Your task to perform on an android device: View the shopping cart on bestbuy. Search for "logitech g933" on bestbuy, select the first entry, add it to the cart, then select checkout. Image 0: 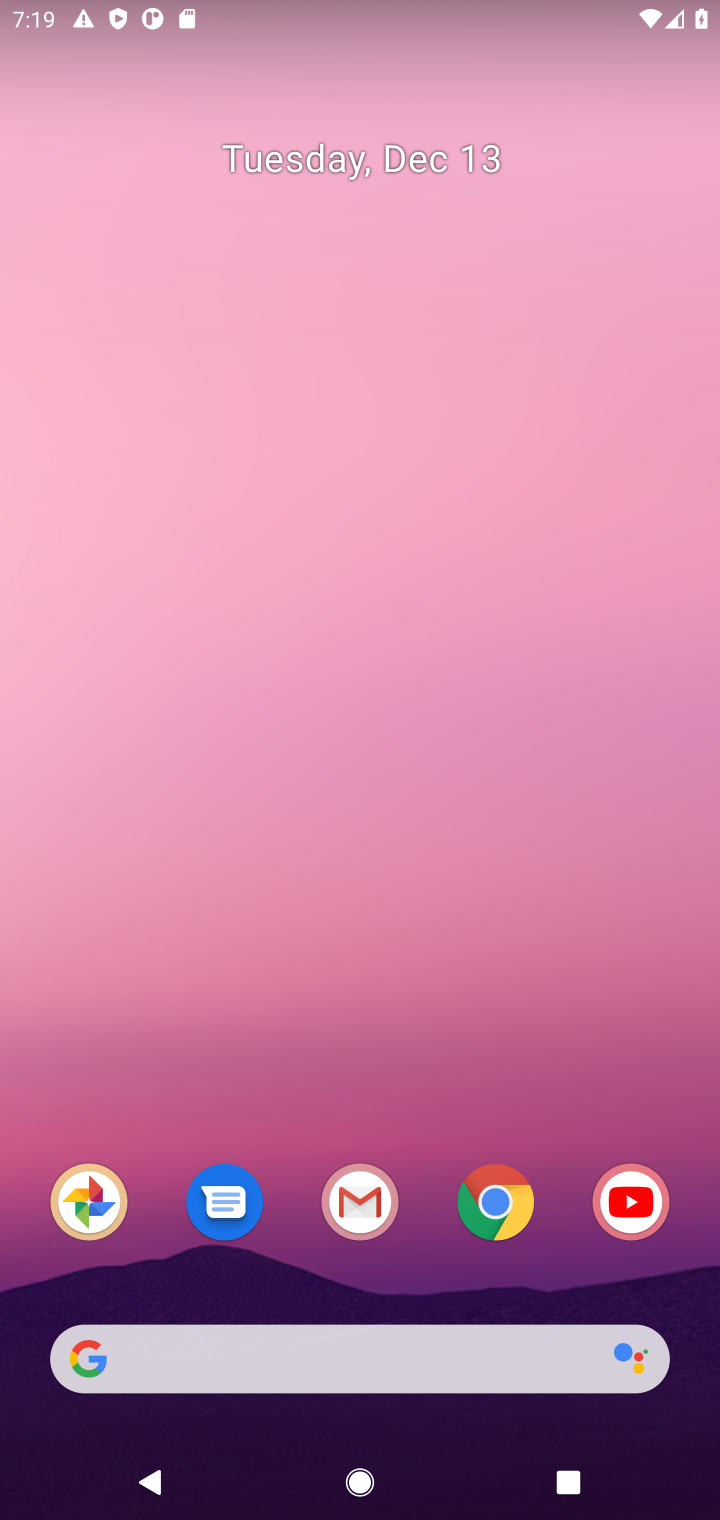
Step 0: click (509, 1201)
Your task to perform on an android device: View the shopping cart on bestbuy. Search for "logitech g933" on bestbuy, select the first entry, add it to the cart, then select checkout. Image 1: 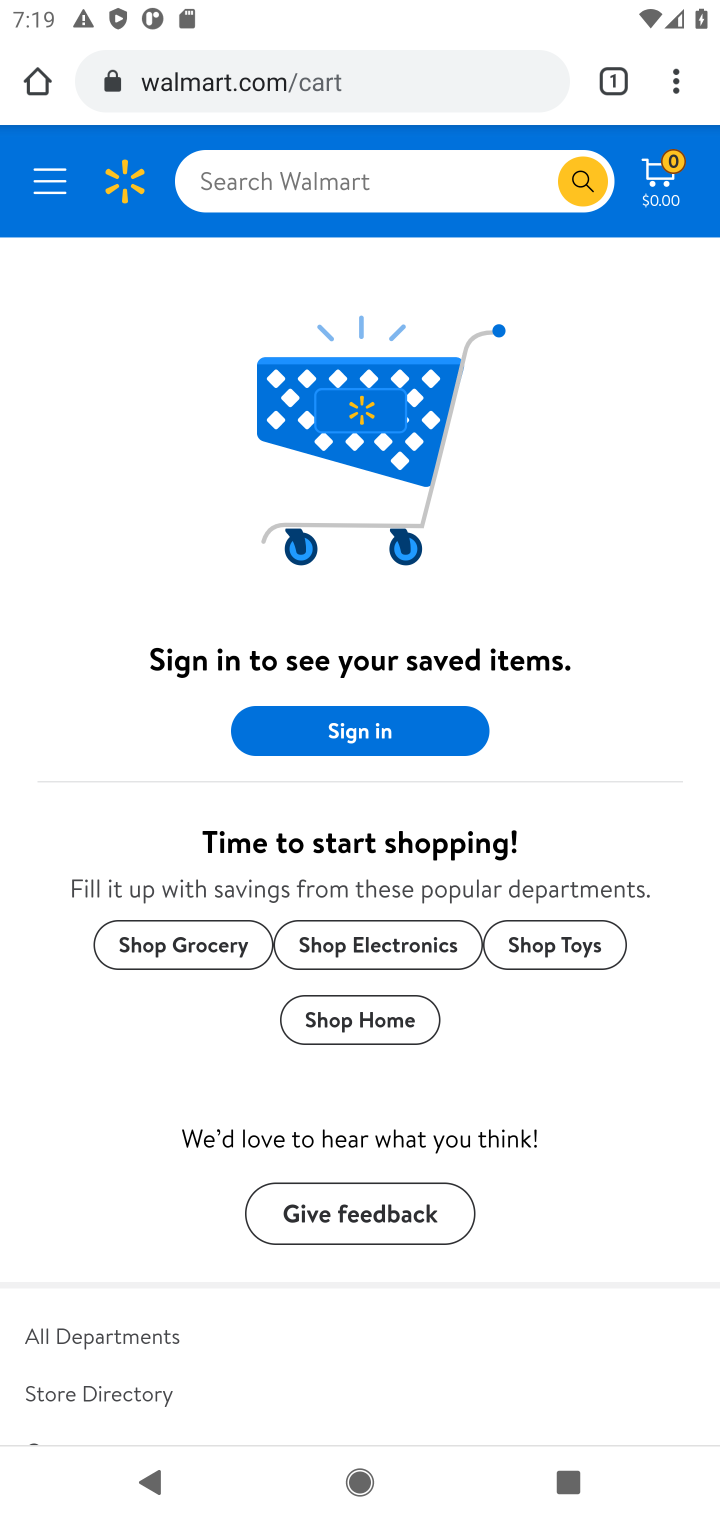
Step 1: click (274, 84)
Your task to perform on an android device: View the shopping cart on bestbuy. Search for "logitech g933" on bestbuy, select the first entry, add it to the cart, then select checkout. Image 2: 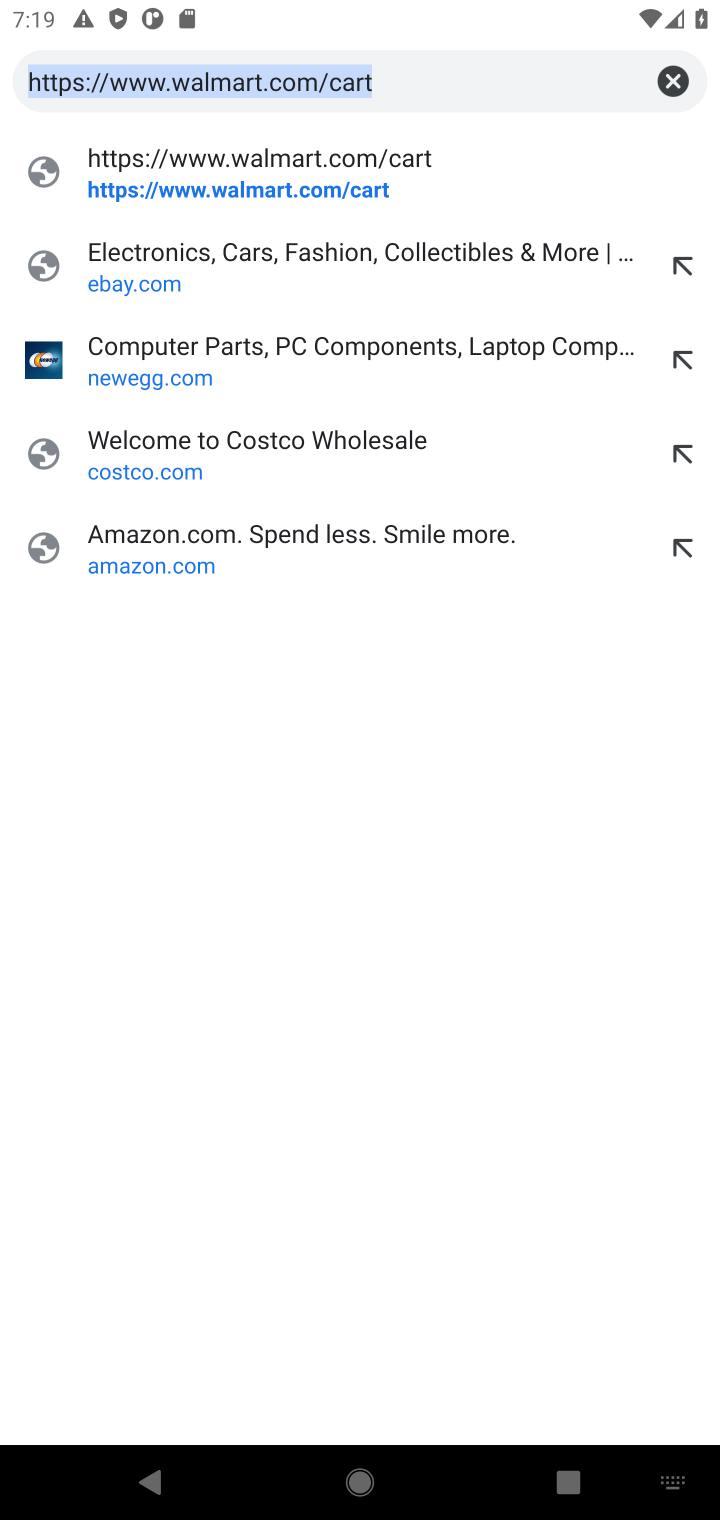
Step 2: type "bestbuy.com"
Your task to perform on an android device: View the shopping cart on bestbuy. Search for "logitech g933" on bestbuy, select the first entry, add it to the cart, then select checkout. Image 3: 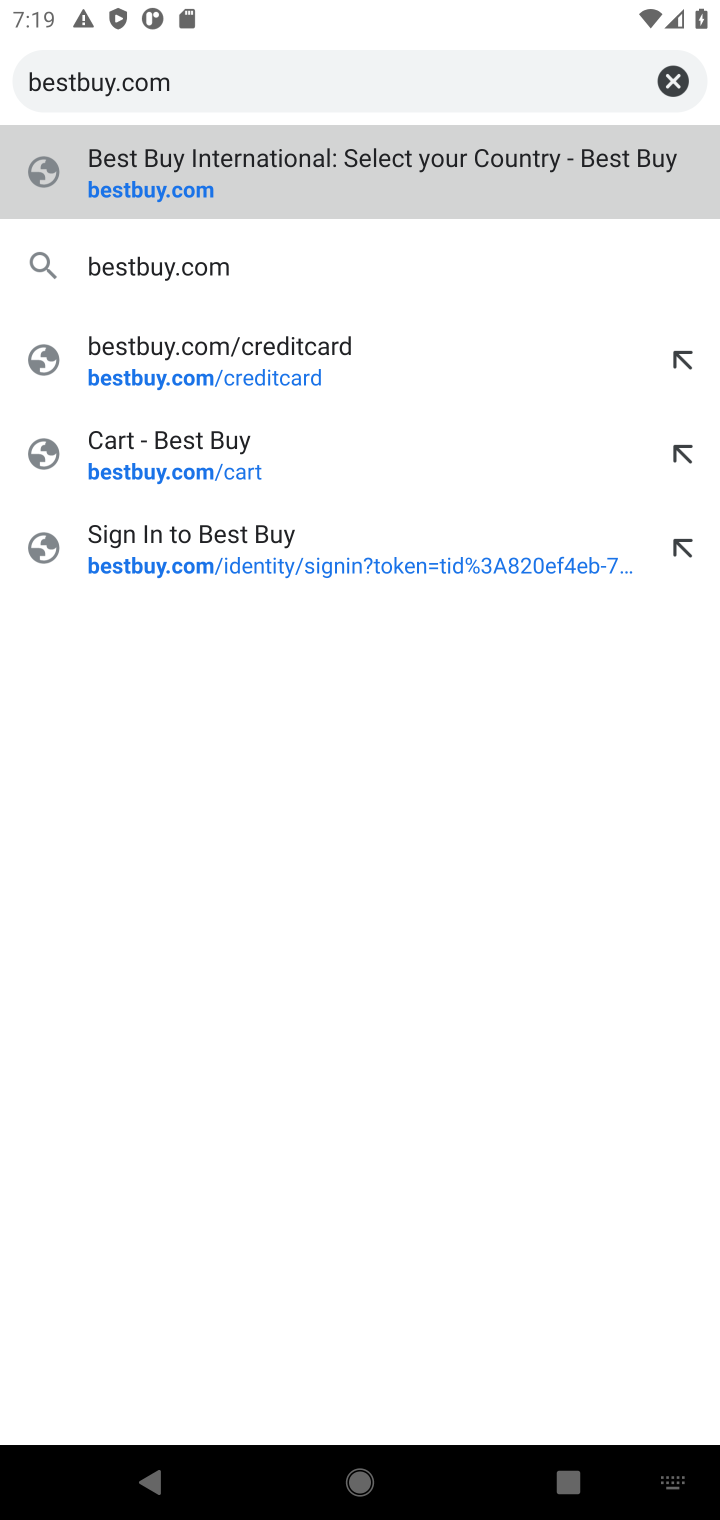
Step 3: click (133, 200)
Your task to perform on an android device: View the shopping cart on bestbuy. Search for "logitech g933" on bestbuy, select the first entry, add it to the cart, then select checkout. Image 4: 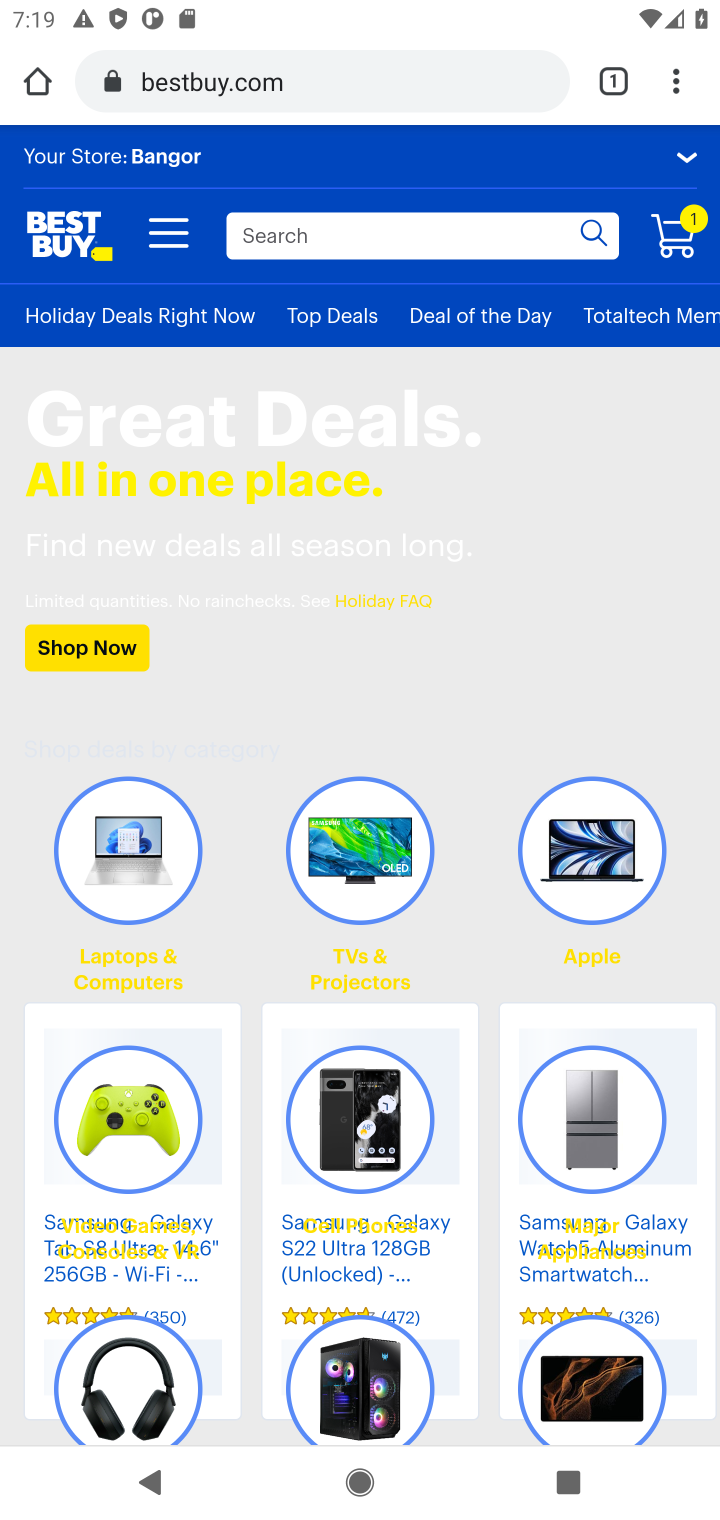
Step 4: click (675, 242)
Your task to perform on an android device: View the shopping cart on bestbuy. Search for "logitech g933" on bestbuy, select the first entry, add it to the cart, then select checkout. Image 5: 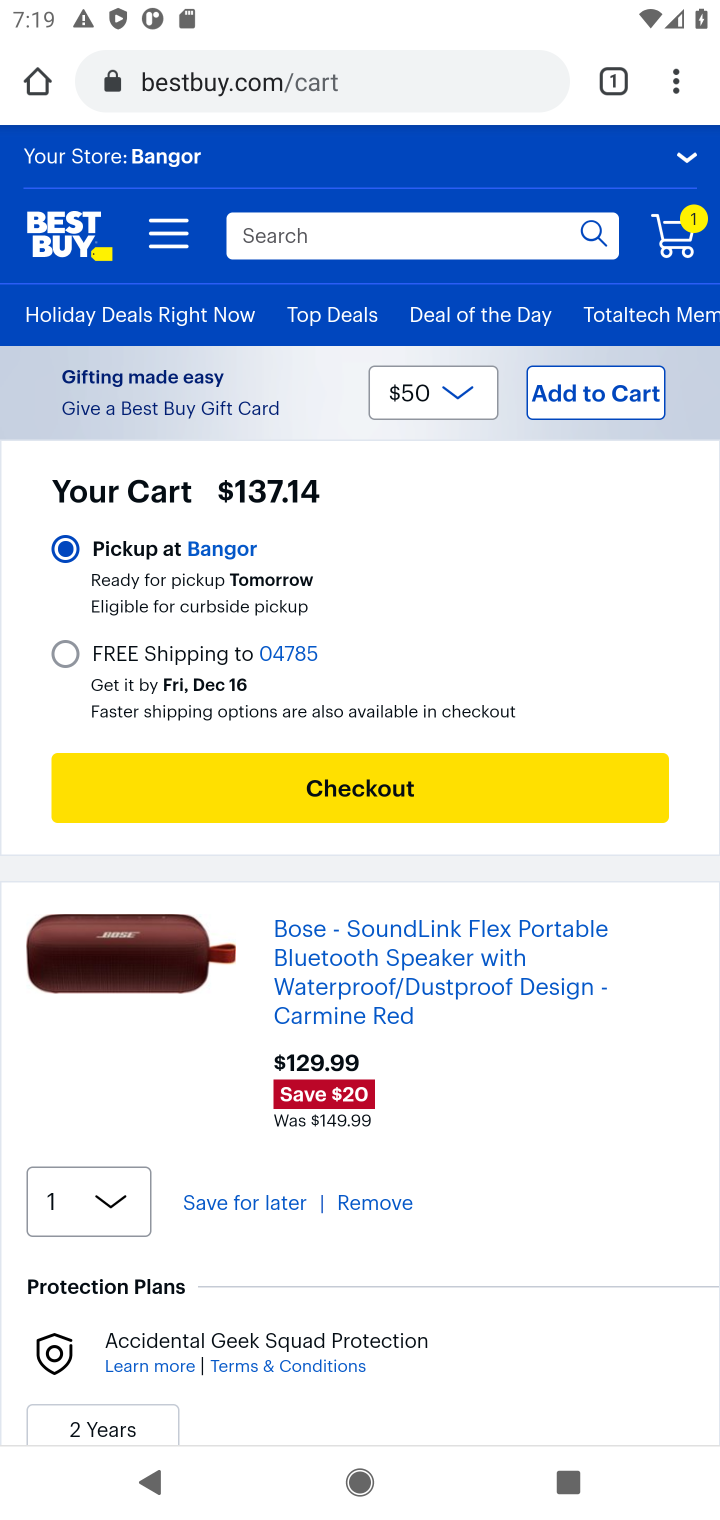
Step 5: drag from (621, 985) to (598, 479)
Your task to perform on an android device: View the shopping cart on bestbuy. Search for "logitech g933" on bestbuy, select the first entry, add it to the cart, then select checkout. Image 6: 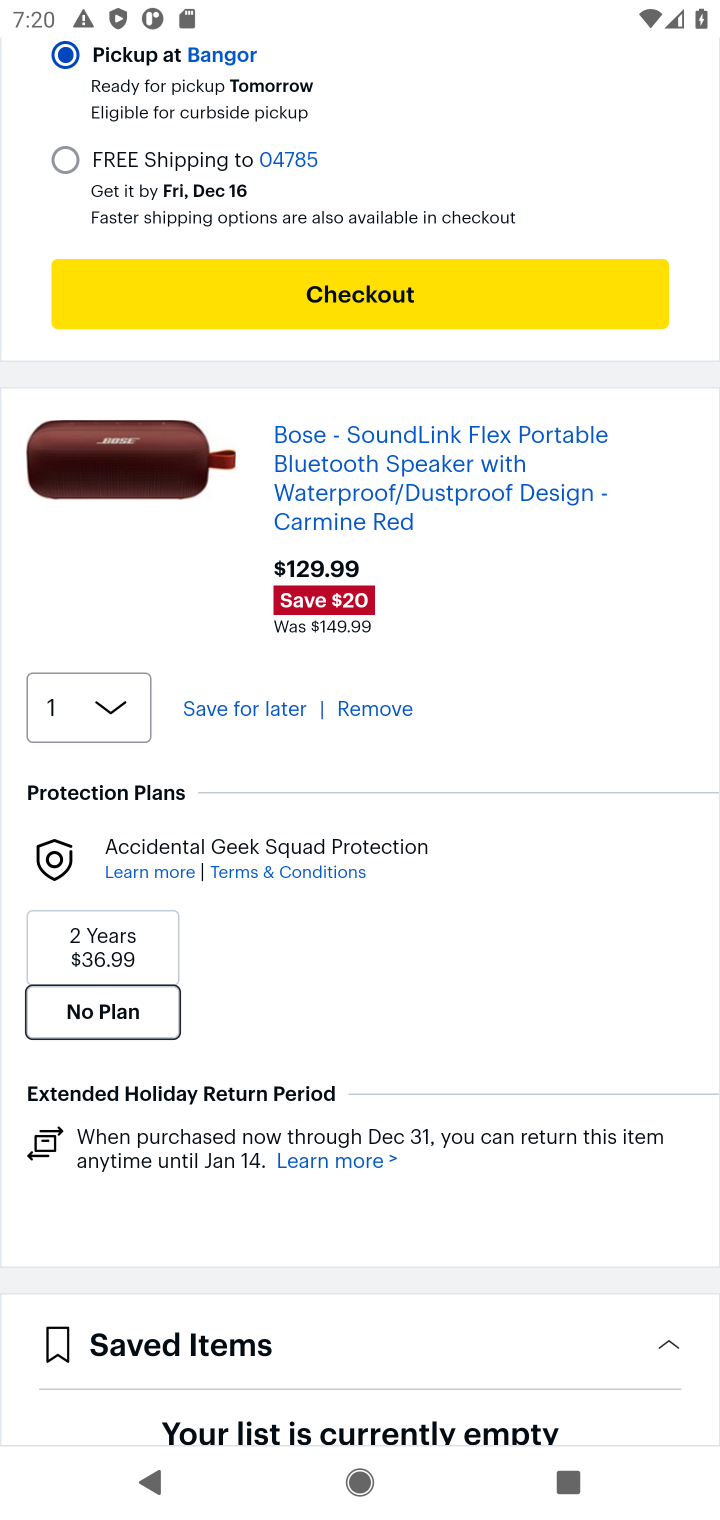
Step 6: drag from (652, 589) to (700, 1077)
Your task to perform on an android device: View the shopping cart on bestbuy. Search for "logitech g933" on bestbuy, select the first entry, add it to the cart, then select checkout. Image 7: 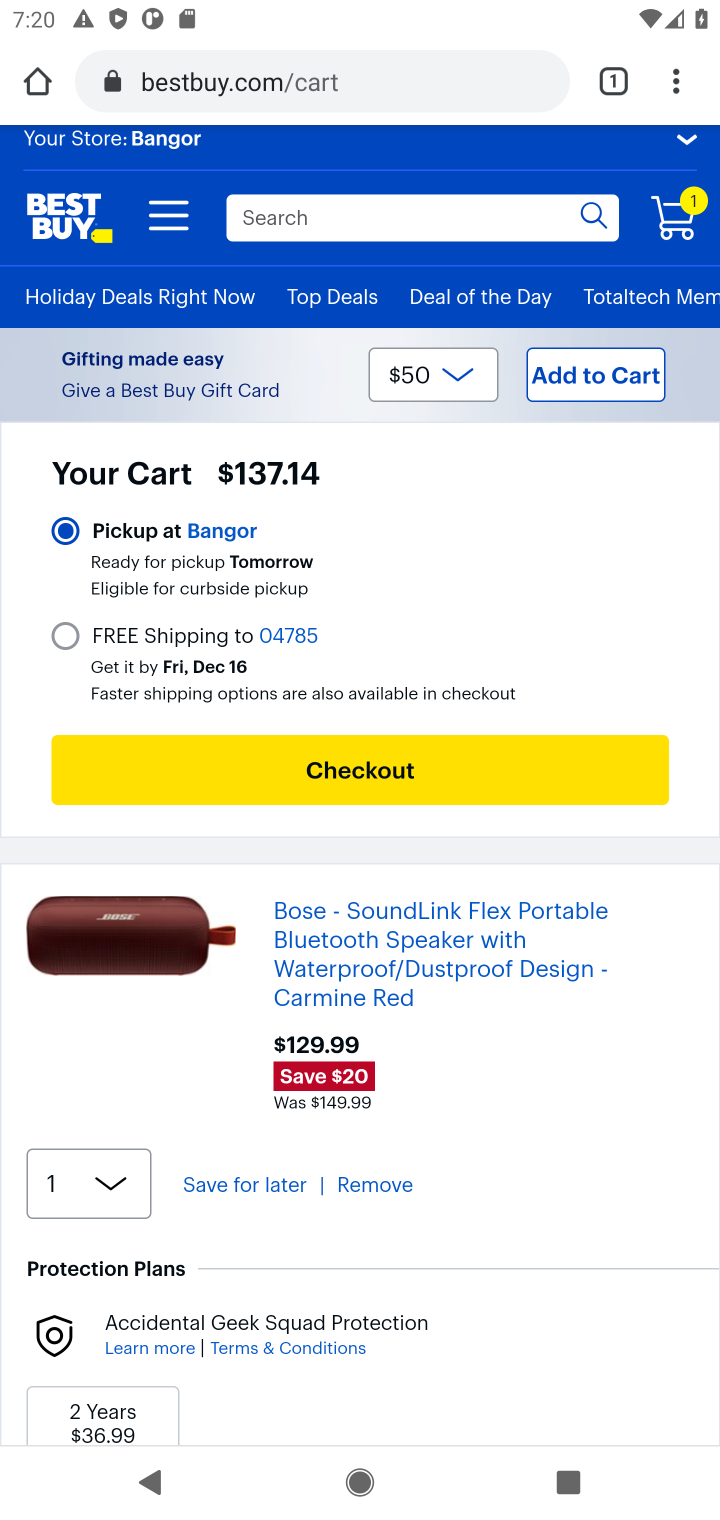
Step 7: click (282, 219)
Your task to perform on an android device: View the shopping cart on bestbuy. Search for "logitech g933" on bestbuy, select the first entry, add it to the cart, then select checkout. Image 8: 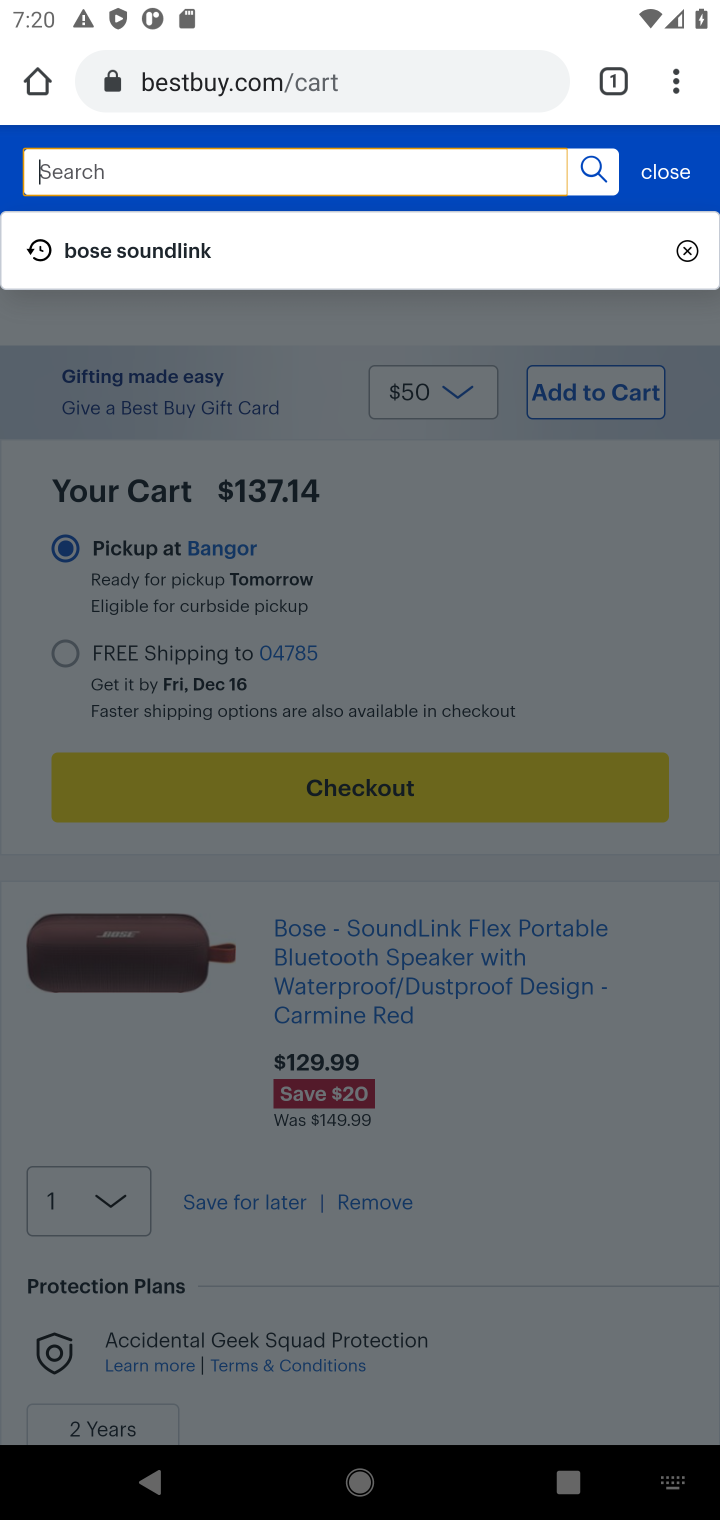
Step 8: type "logitech g933"
Your task to perform on an android device: View the shopping cart on bestbuy. Search for "logitech g933" on bestbuy, select the first entry, add it to the cart, then select checkout. Image 9: 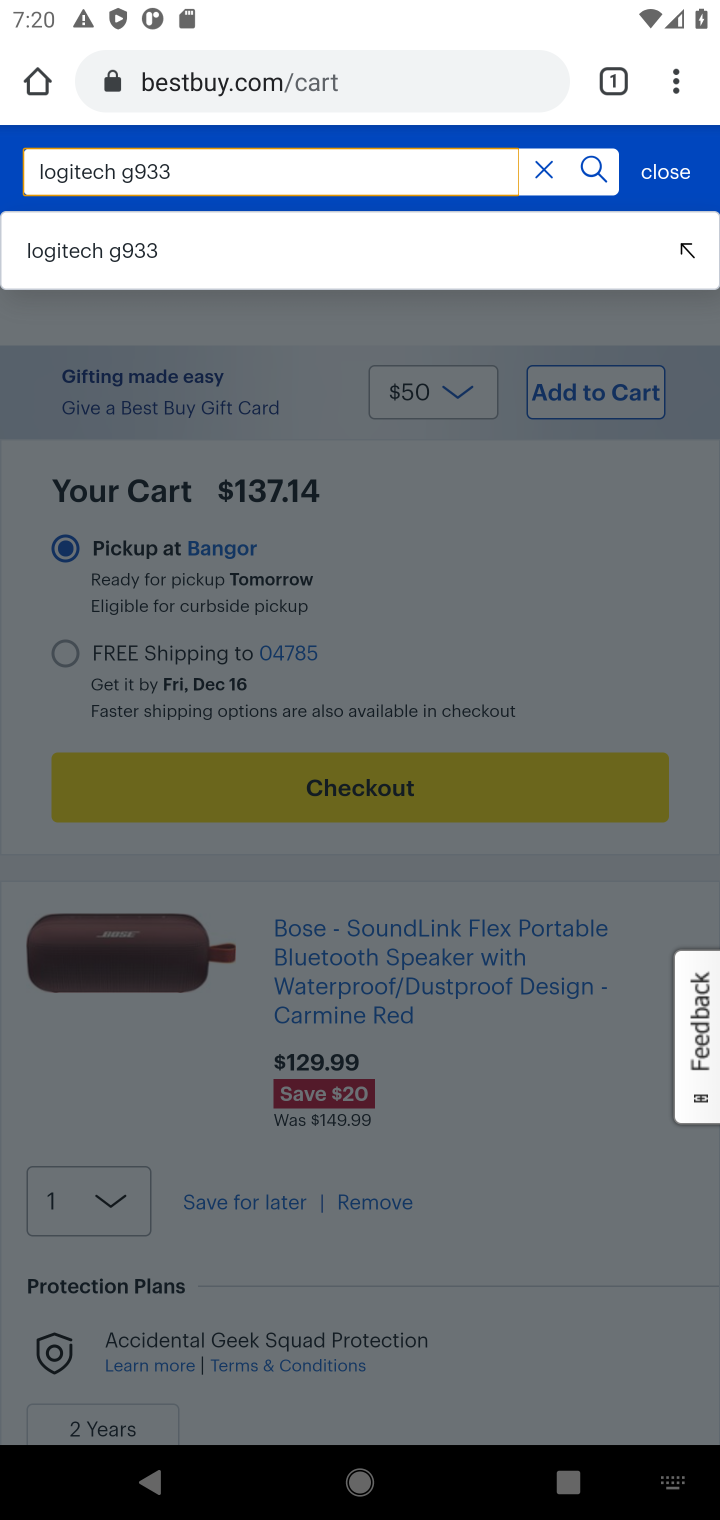
Step 9: click (106, 261)
Your task to perform on an android device: View the shopping cart on bestbuy. Search for "logitech g933" on bestbuy, select the first entry, add it to the cart, then select checkout. Image 10: 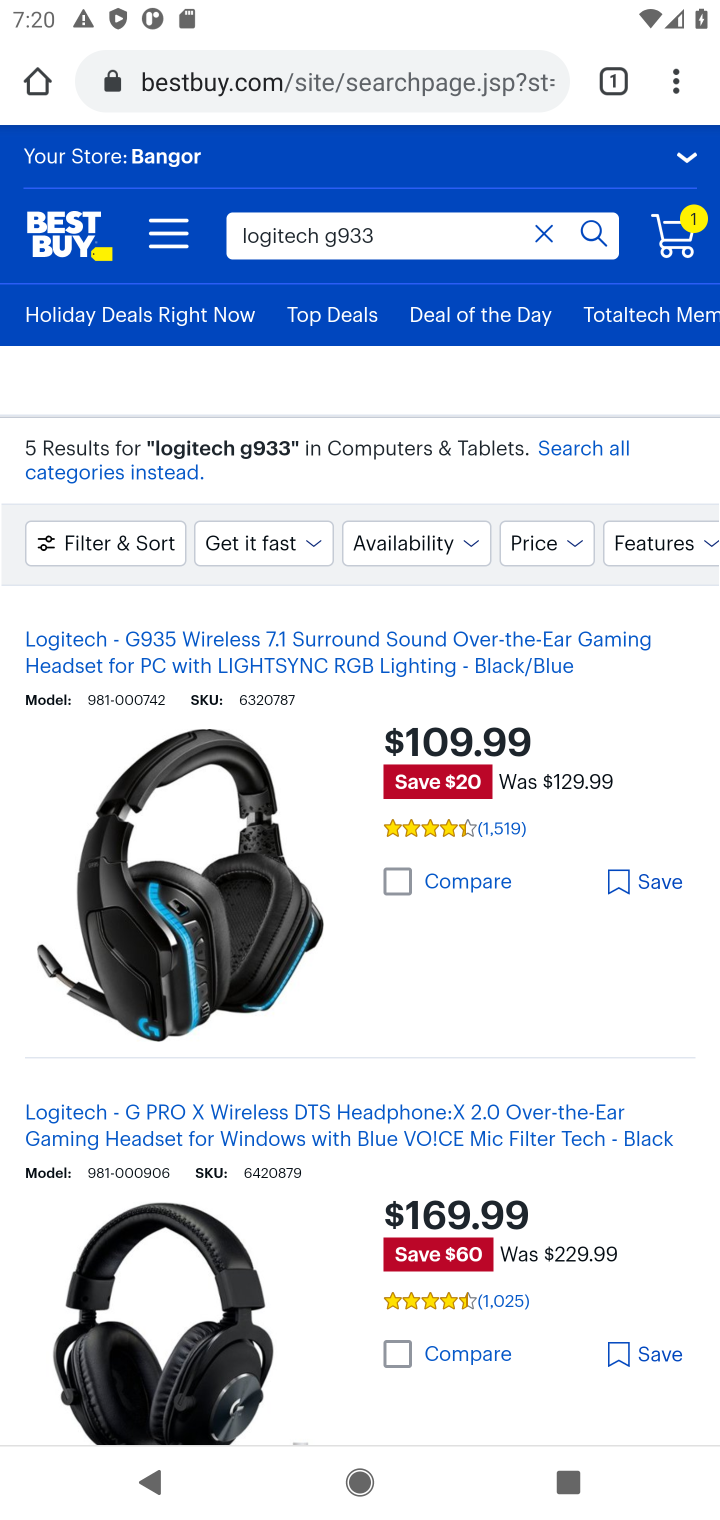
Step 10: task complete